Your task to perform on an android device: Open accessibility settings Image 0: 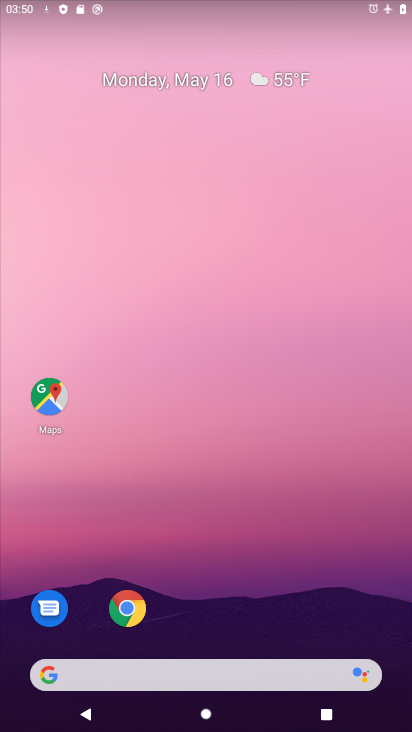
Step 0: drag from (208, 634) to (190, 202)
Your task to perform on an android device: Open accessibility settings Image 1: 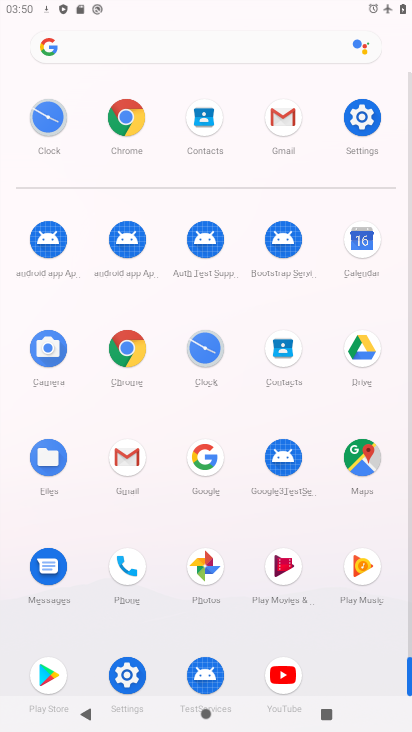
Step 1: click (355, 110)
Your task to perform on an android device: Open accessibility settings Image 2: 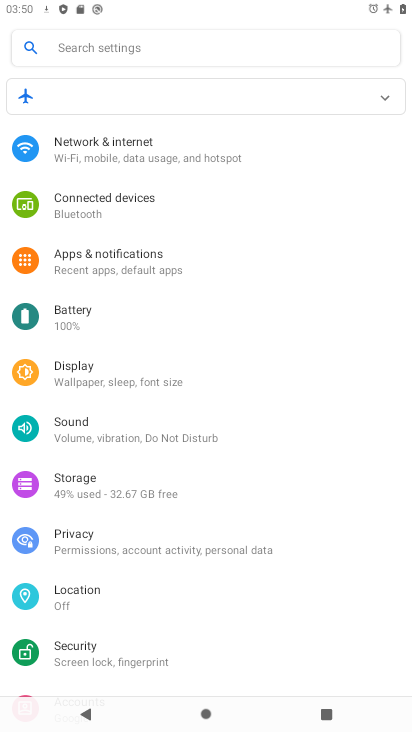
Step 2: drag from (138, 638) to (185, 348)
Your task to perform on an android device: Open accessibility settings Image 3: 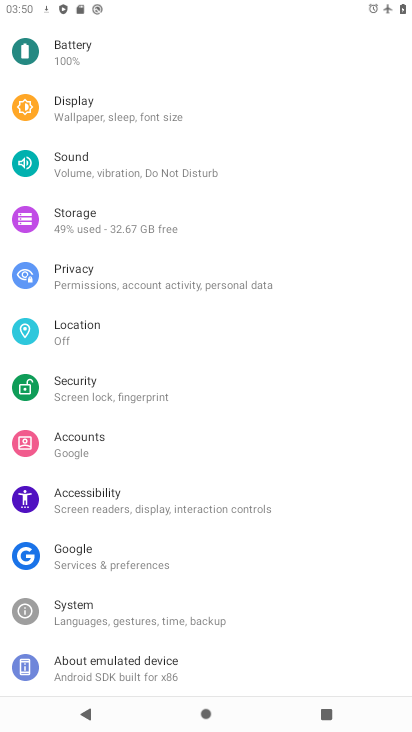
Step 3: click (104, 495)
Your task to perform on an android device: Open accessibility settings Image 4: 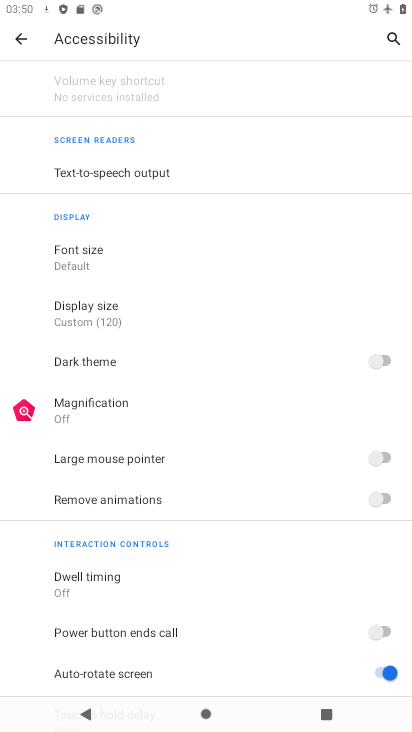
Step 4: task complete